Your task to perform on an android device: open a bookmark in the chrome app Image 0: 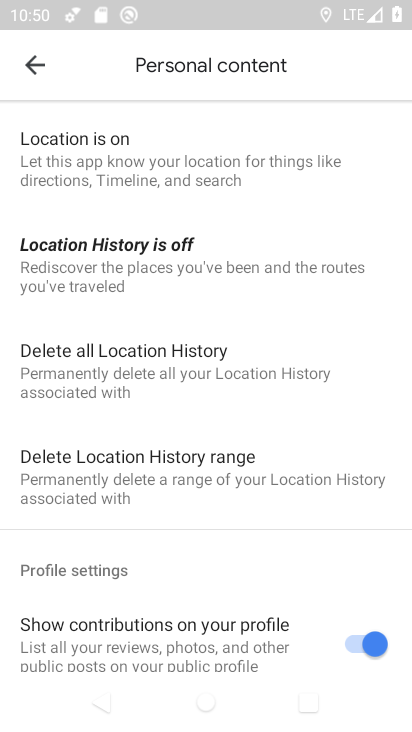
Step 0: press home button
Your task to perform on an android device: open a bookmark in the chrome app Image 1: 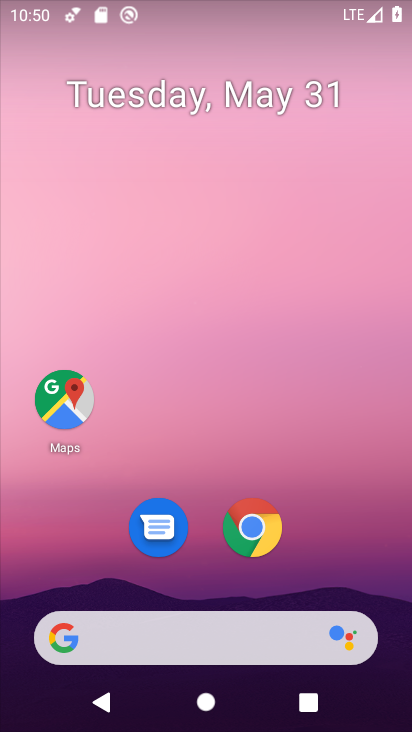
Step 1: click (259, 527)
Your task to perform on an android device: open a bookmark in the chrome app Image 2: 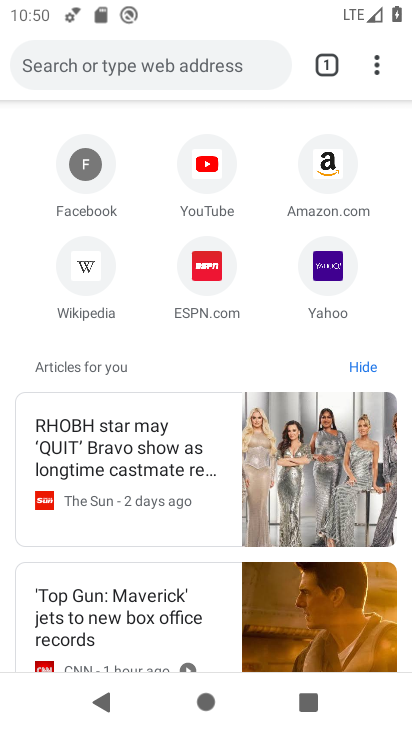
Step 2: click (374, 63)
Your task to perform on an android device: open a bookmark in the chrome app Image 3: 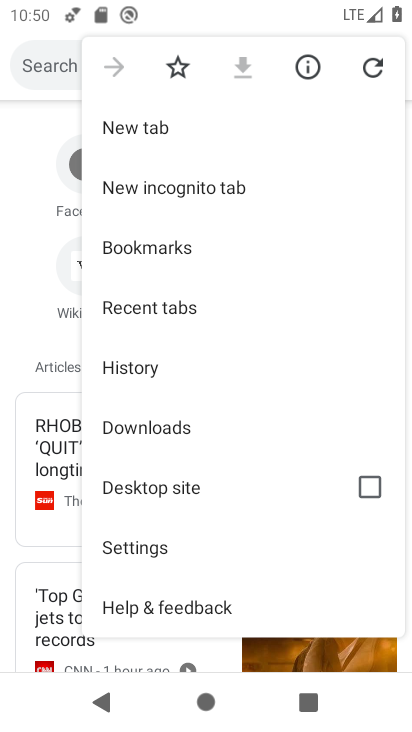
Step 3: click (131, 251)
Your task to perform on an android device: open a bookmark in the chrome app Image 4: 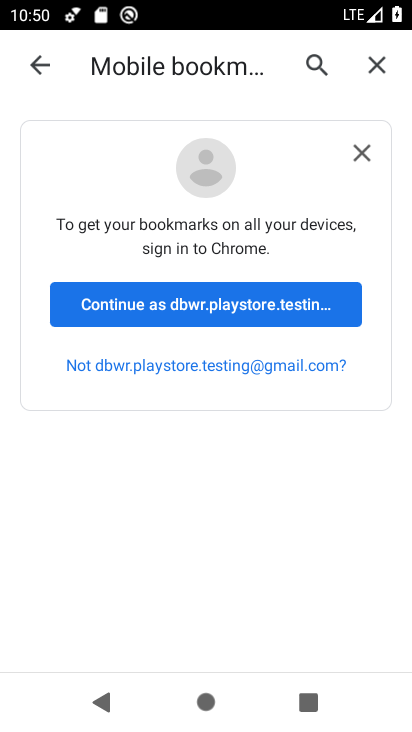
Step 4: click (141, 307)
Your task to perform on an android device: open a bookmark in the chrome app Image 5: 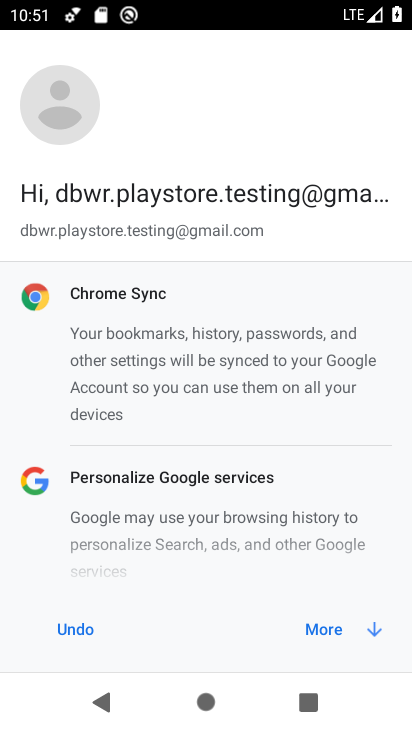
Step 5: click (324, 638)
Your task to perform on an android device: open a bookmark in the chrome app Image 6: 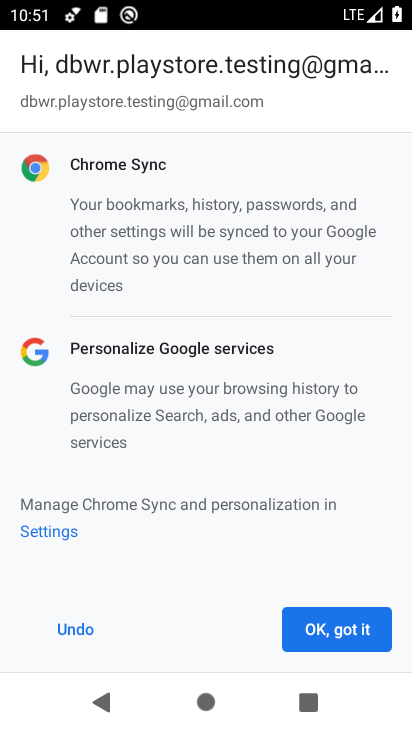
Step 6: click (324, 638)
Your task to perform on an android device: open a bookmark in the chrome app Image 7: 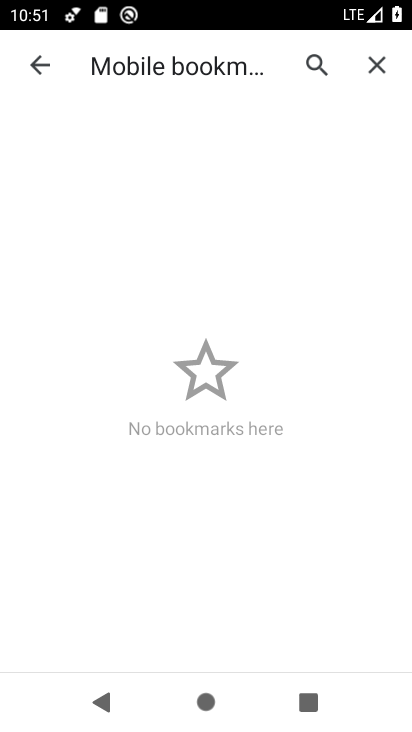
Step 7: task complete